Your task to perform on an android device: Open calendar and show me the fourth week of next month Image 0: 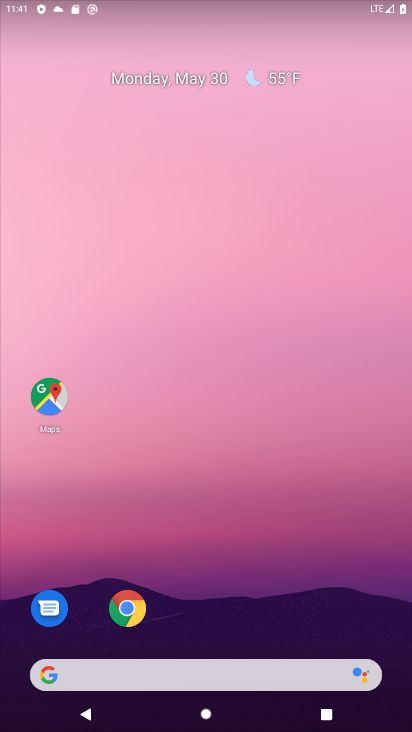
Step 0: drag from (254, 645) to (305, 37)
Your task to perform on an android device: Open calendar and show me the fourth week of next month Image 1: 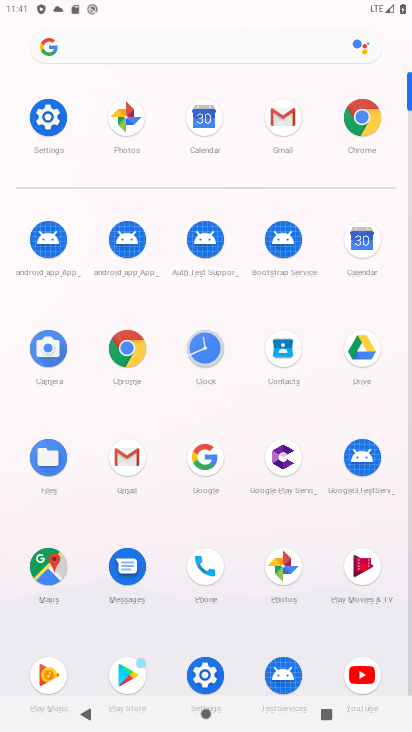
Step 1: click (208, 116)
Your task to perform on an android device: Open calendar and show me the fourth week of next month Image 2: 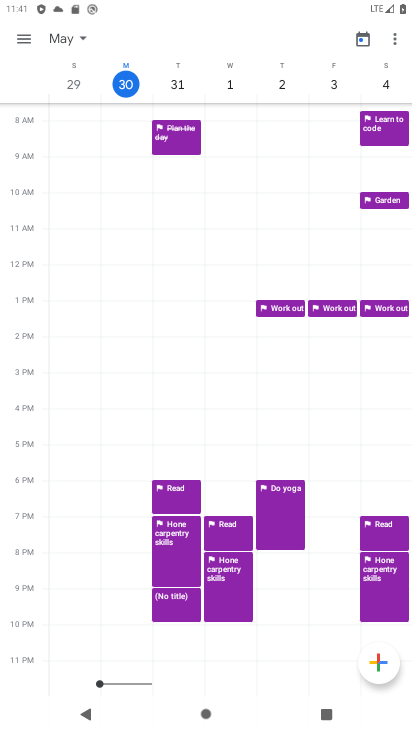
Step 2: task complete